Your task to perform on an android device: turn off location Image 0: 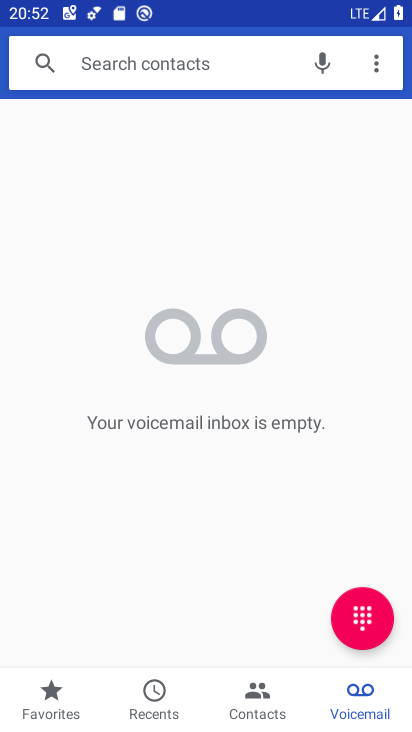
Step 0: press home button
Your task to perform on an android device: turn off location Image 1: 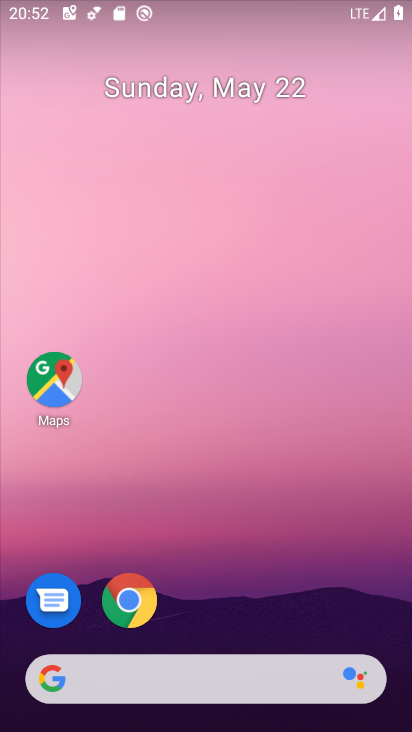
Step 1: drag from (163, 641) to (202, 287)
Your task to perform on an android device: turn off location Image 2: 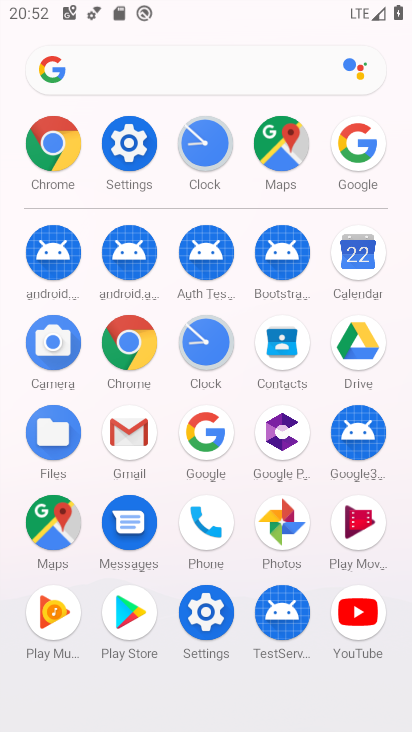
Step 2: click (145, 133)
Your task to perform on an android device: turn off location Image 3: 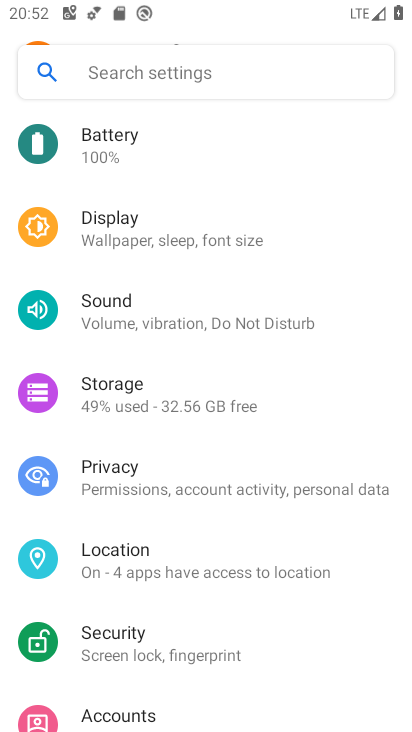
Step 3: click (155, 570)
Your task to perform on an android device: turn off location Image 4: 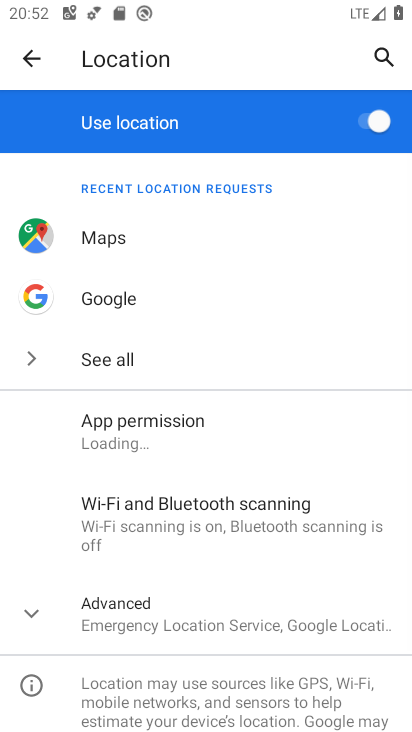
Step 4: click (360, 115)
Your task to perform on an android device: turn off location Image 5: 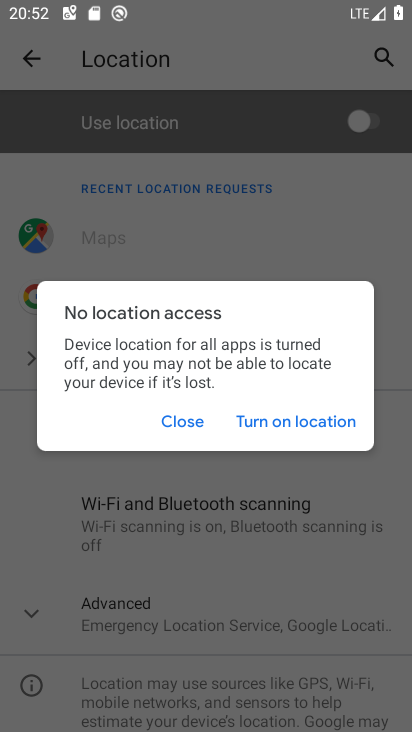
Step 5: task complete